Your task to perform on an android device: Open Maps and search for coffee Image 0: 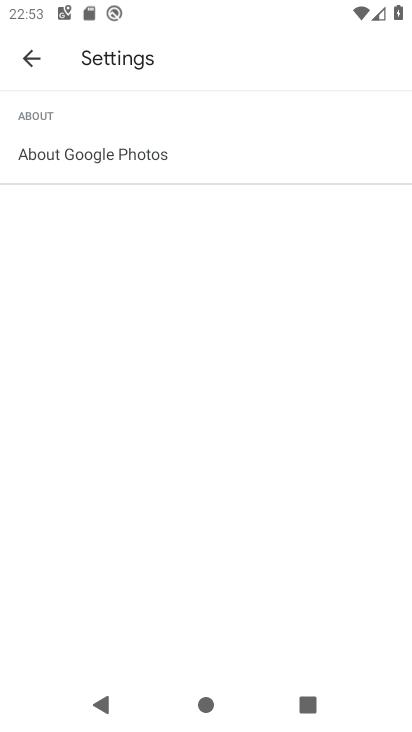
Step 0: press home button
Your task to perform on an android device: Open Maps and search for coffee Image 1: 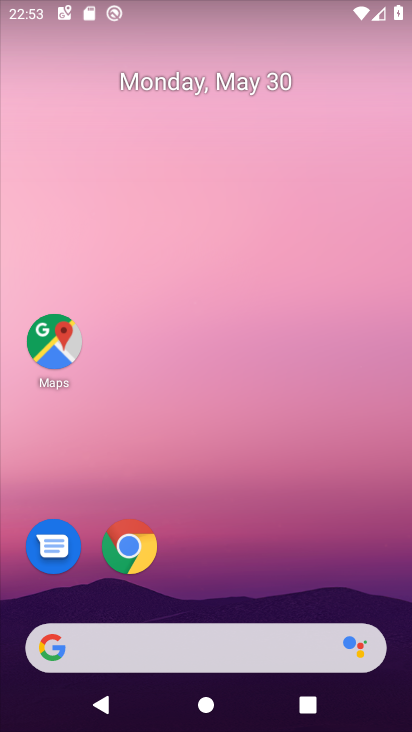
Step 1: click (56, 316)
Your task to perform on an android device: Open Maps and search for coffee Image 2: 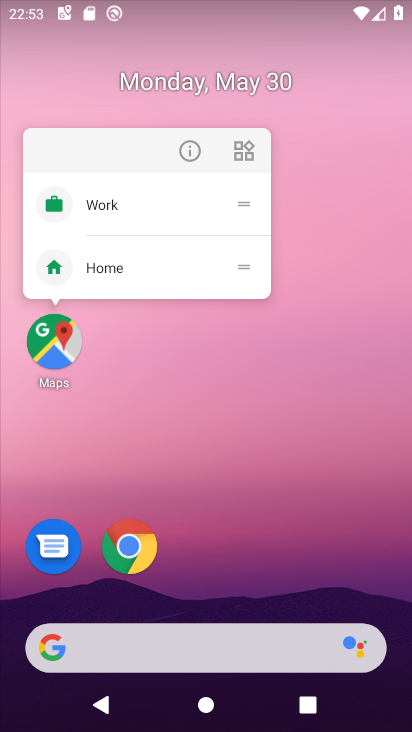
Step 2: click (57, 319)
Your task to perform on an android device: Open Maps and search for coffee Image 3: 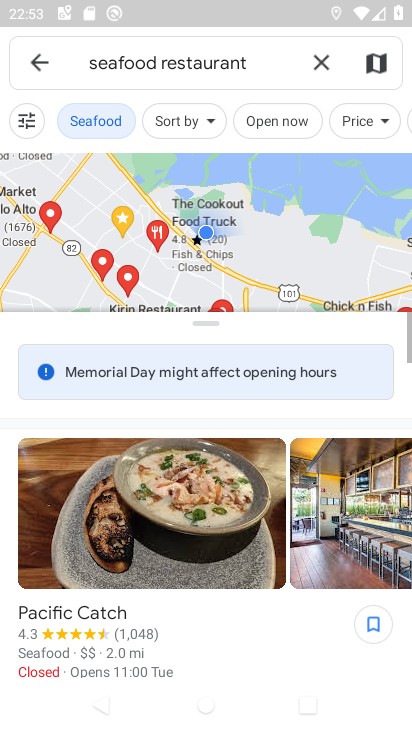
Step 3: click (323, 58)
Your task to perform on an android device: Open Maps and search for coffee Image 4: 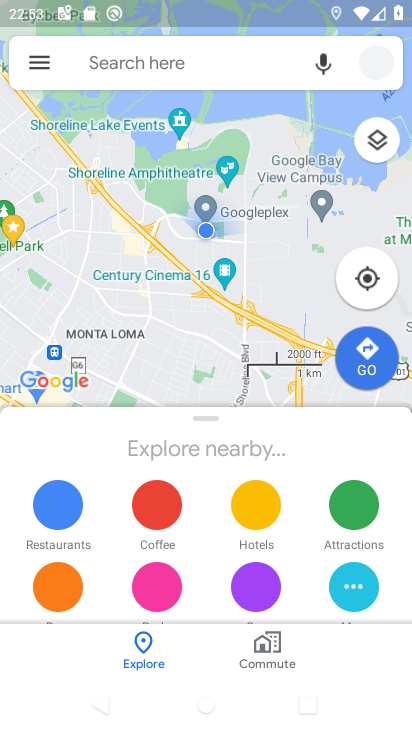
Step 4: click (234, 62)
Your task to perform on an android device: Open Maps and search for coffee Image 5: 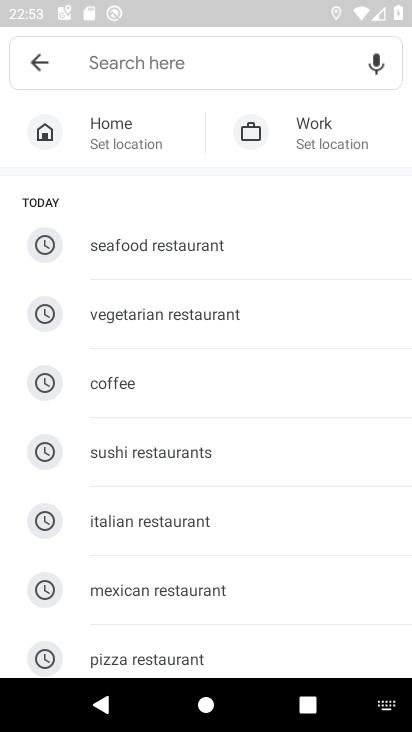
Step 5: type "coffee"
Your task to perform on an android device: Open Maps and search for coffee Image 6: 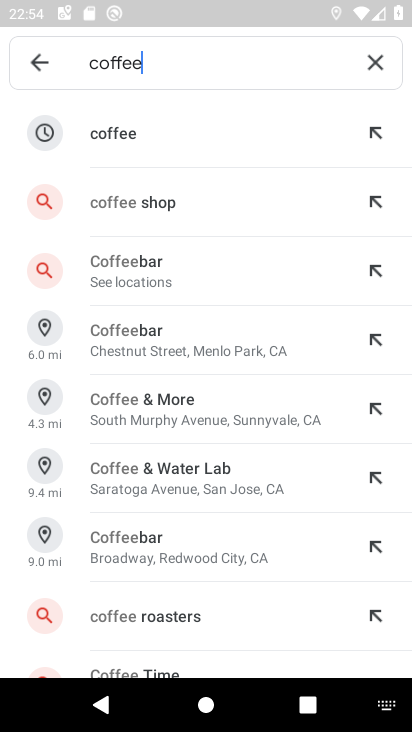
Step 6: click (201, 147)
Your task to perform on an android device: Open Maps and search for coffee Image 7: 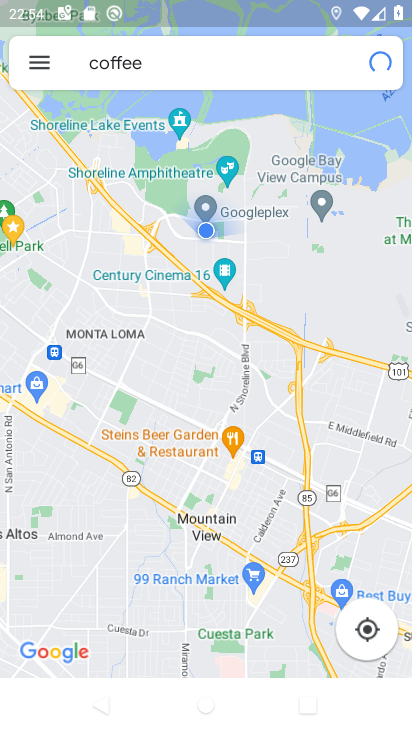
Step 7: task complete